Your task to perform on an android device: Go to battery settings Image 0: 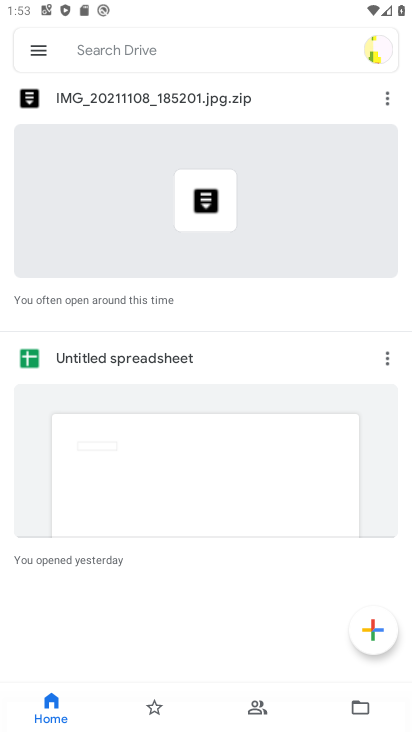
Step 0: press home button
Your task to perform on an android device: Go to battery settings Image 1: 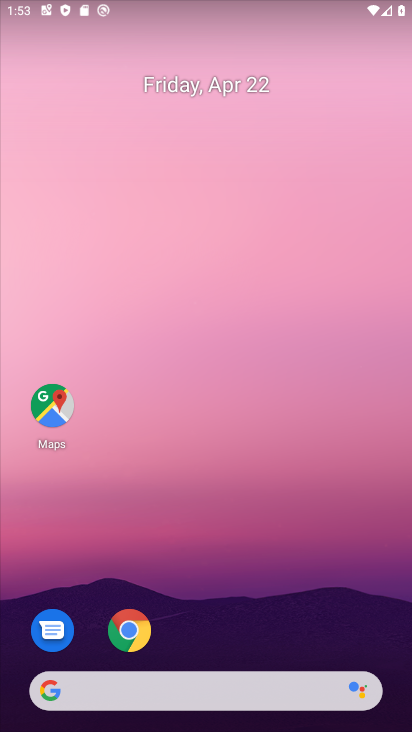
Step 1: drag from (375, 562) to (323, 79)
Your task to perform on an android device: Go to battery settings Image 2: 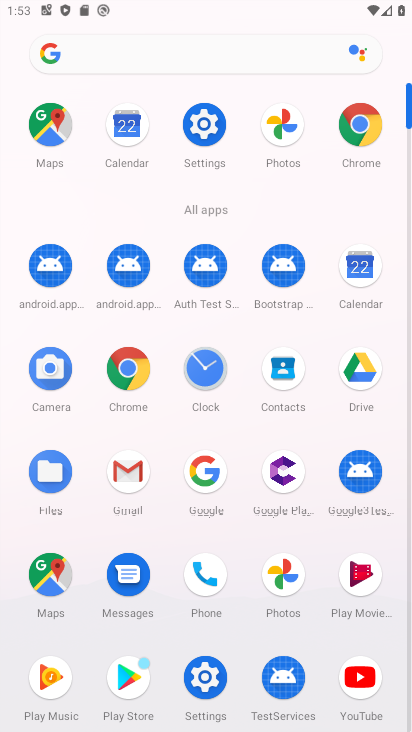
Step 2: click (200, 143)
Your task to perform on an android device: Go to battery settings Image 3: 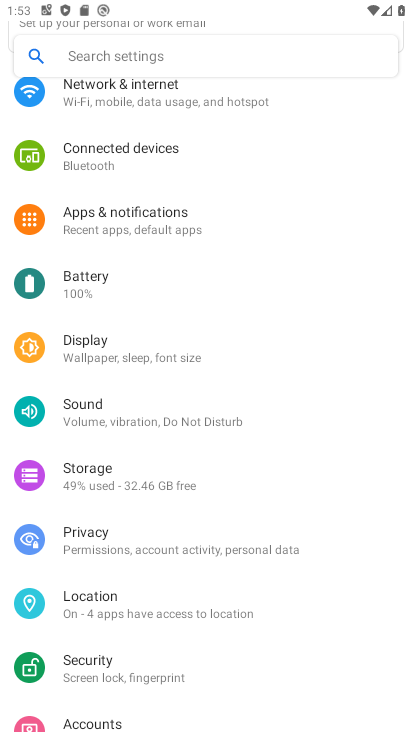
Step 3: click (87, 291)
Your task to perform on an android device: Go to battery settings Image 4: 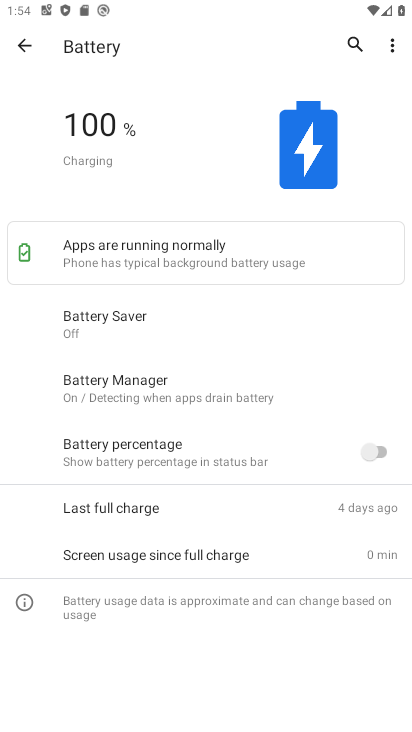
Step 4: task complete